Your task to perform on an android device: What's on my calendar today? Image 0: 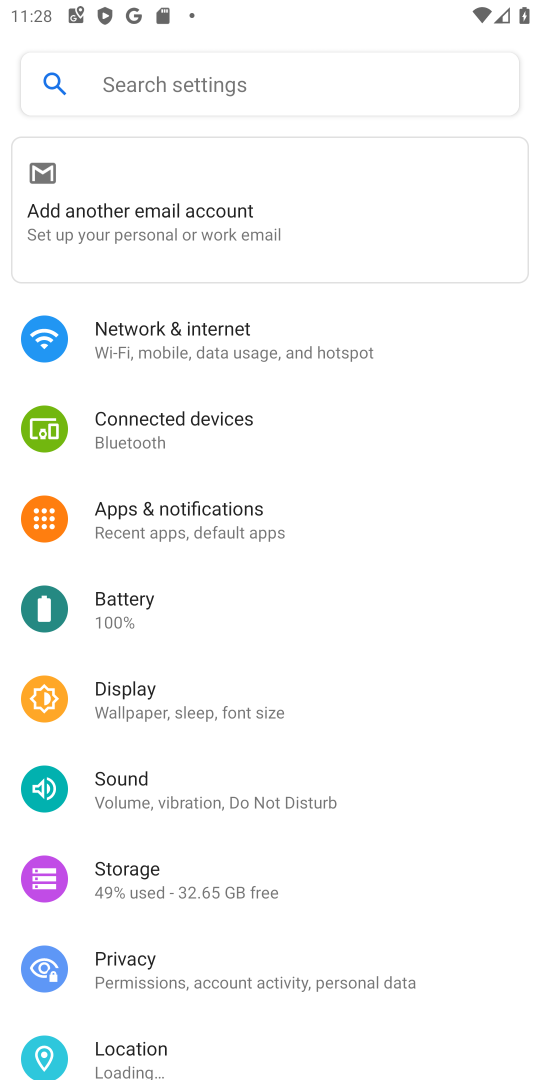
Step 0: press home button
Your task to perform on an android device: What's on my calendar today? Image 1: 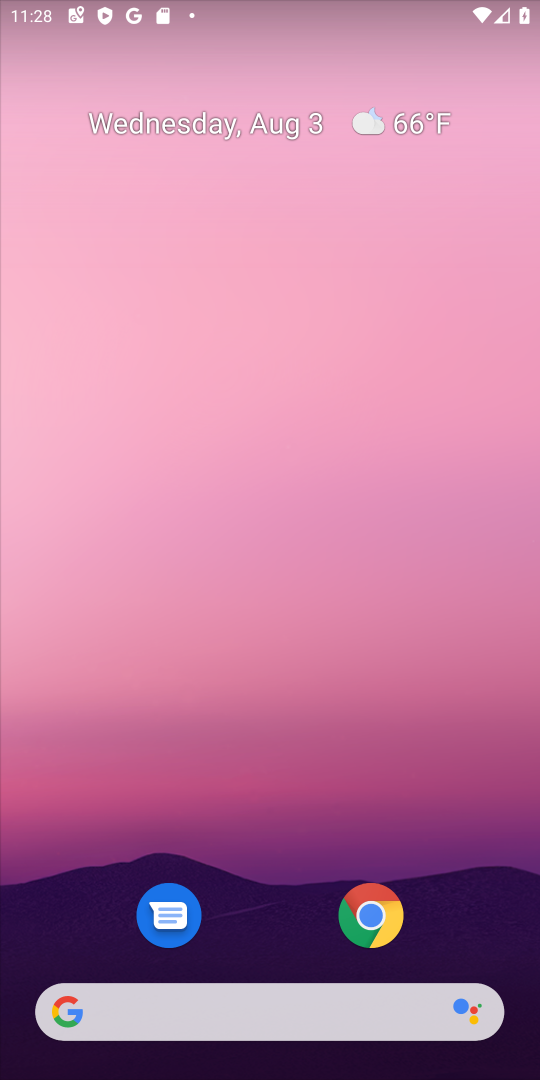
Step 1: drag from (317, 950) to (287, 0)
Your task to perform on an android device: What's on my calendar today? Image 2: 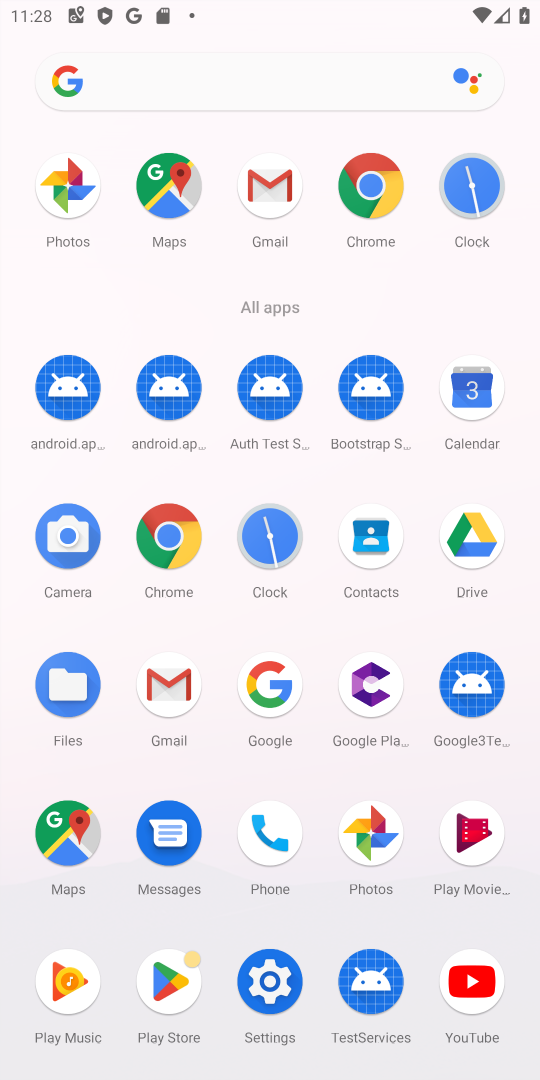
Step 2: click (476, 374)
Your task to perform on an android device: What's on my calendar today? Image 3: 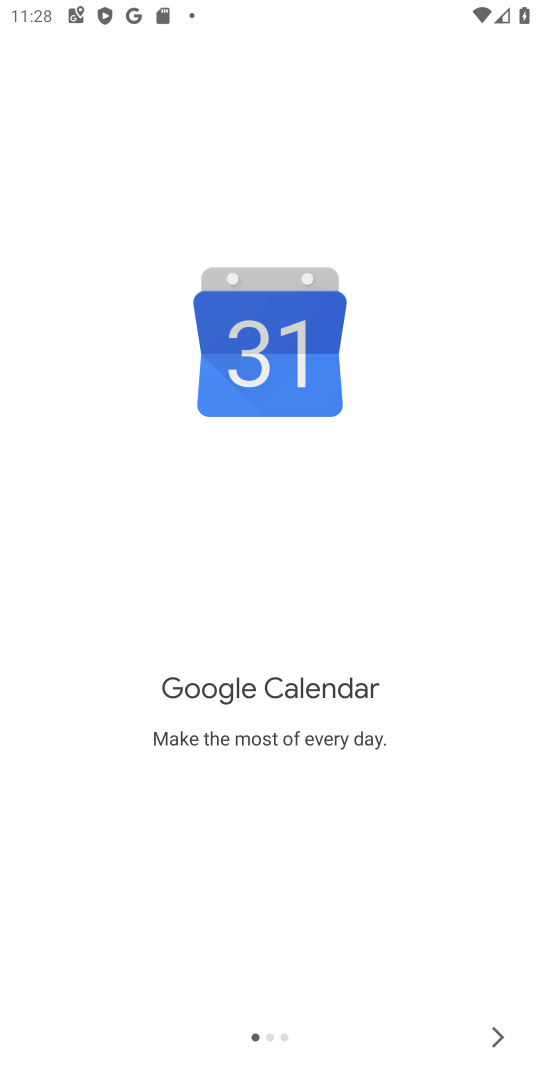
Step 3: click (490, 1050)
Your task to perform on an android device: What's on my calendar today? Image 4: 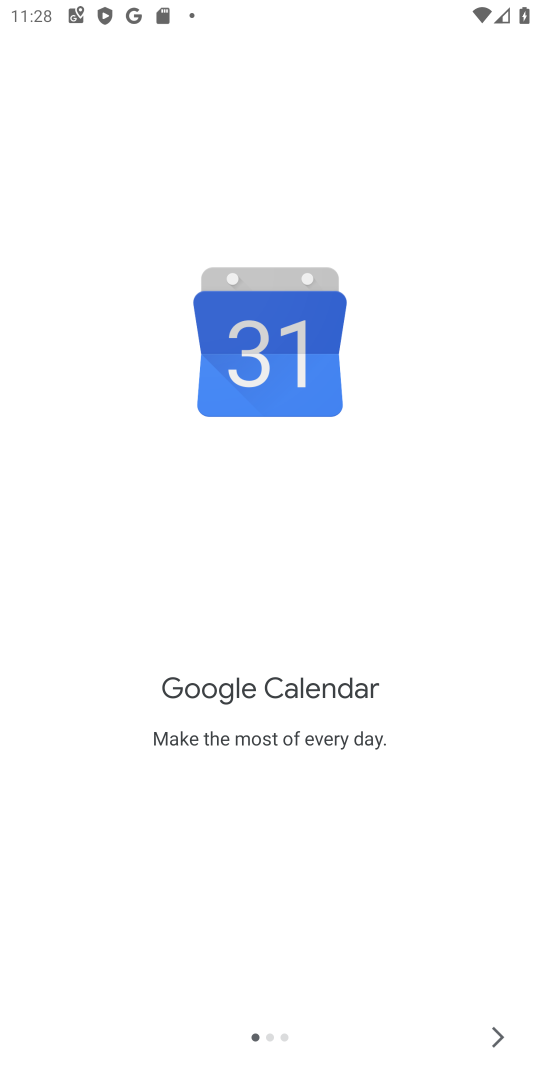
Step 4: click (490, 1050)
Your task to perform on an android device: What's on my calendar today? Image 5: 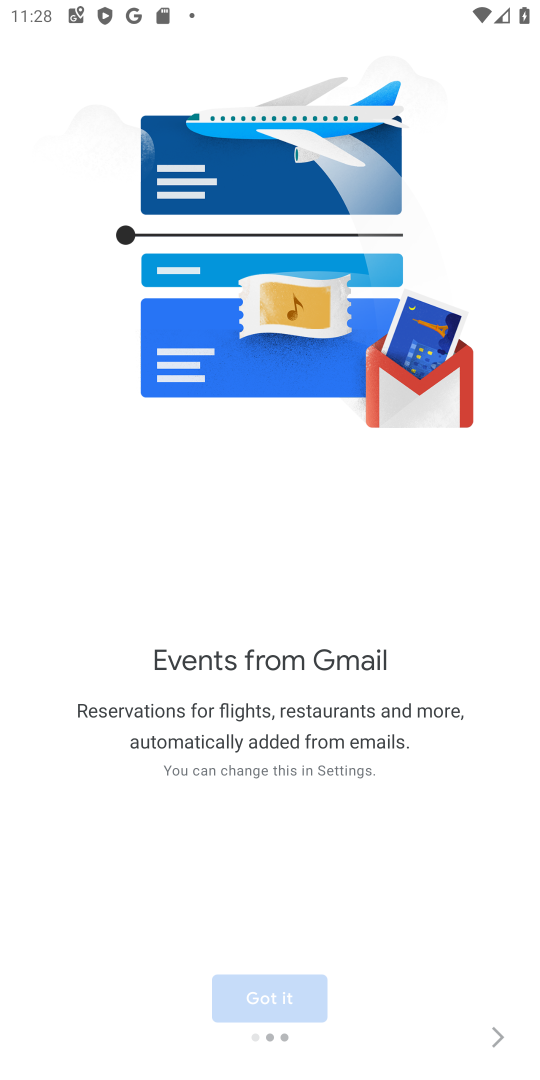
Step 5: click (490, 1050)
Your task to perform on an android device: What's on my calendar today? Image 6: 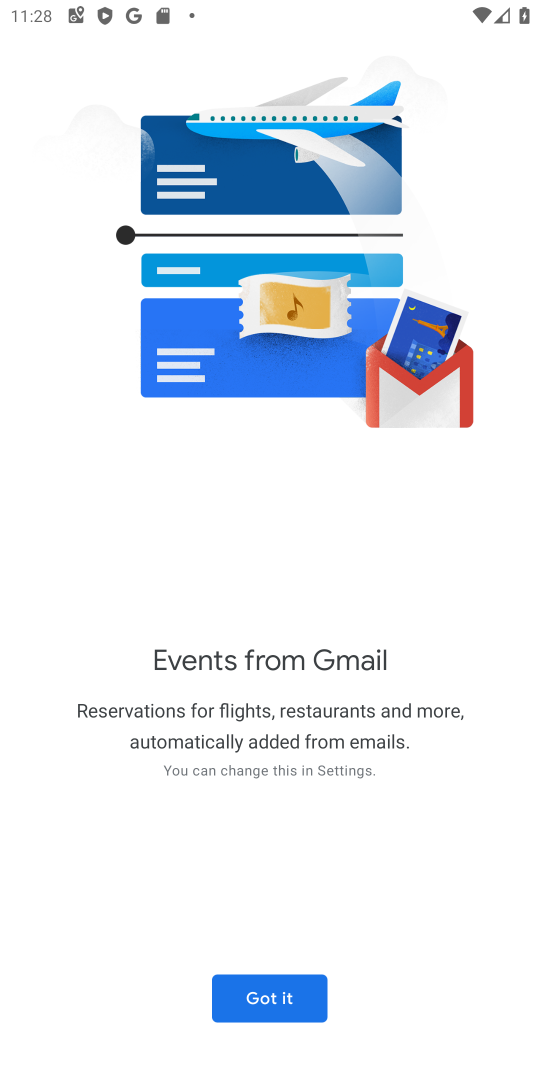
Step 6: click (298, 980)
Your task to perform on an android device: What's on my calendar today? Image 7: 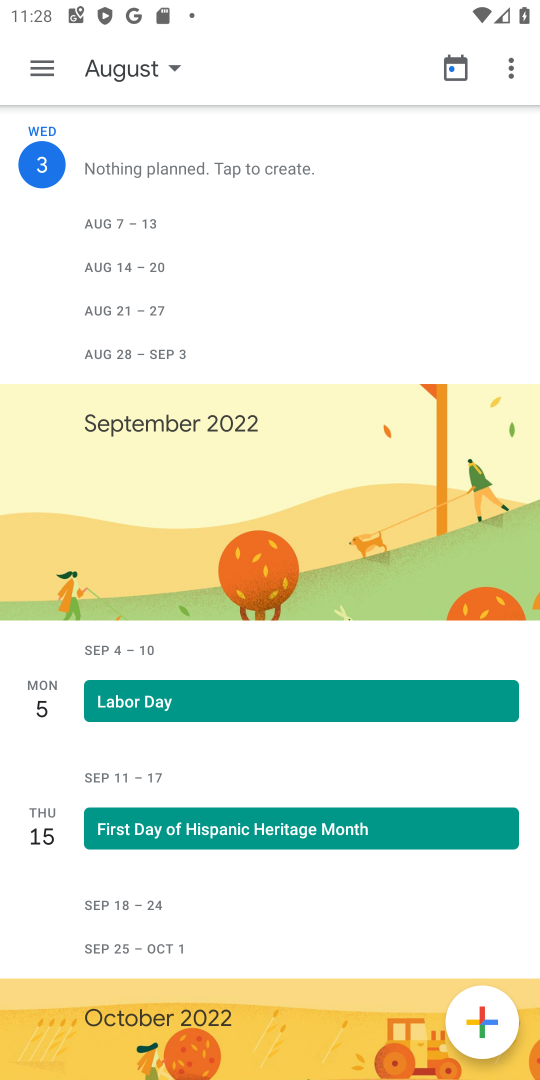
Step 7: click (178, 66)
Your task to perform on an android device: What's on my calendar today? Image 8: 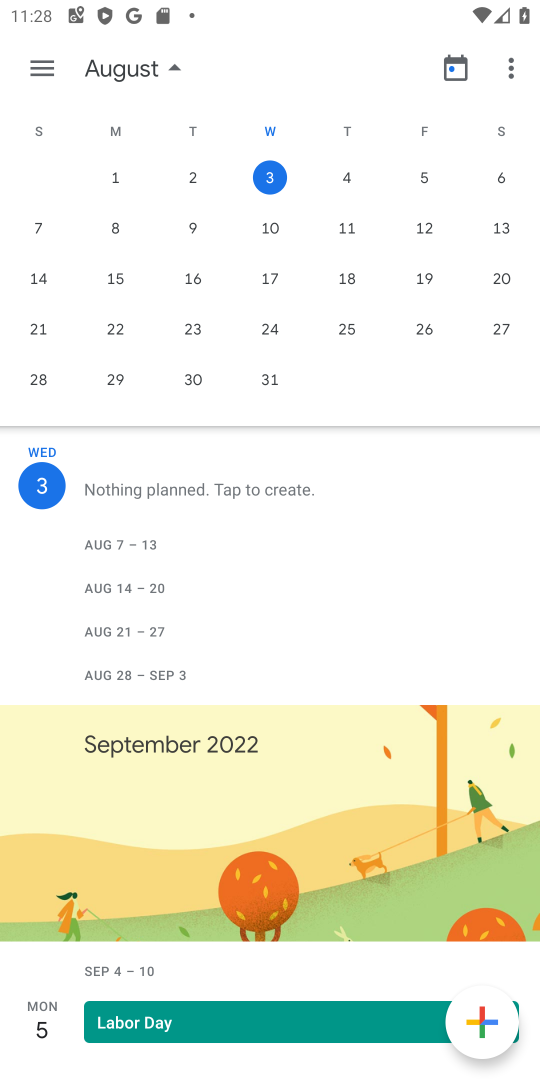
Step 8: task complete